Your task to perform on an android device: Turn off the flashlight Image 0: 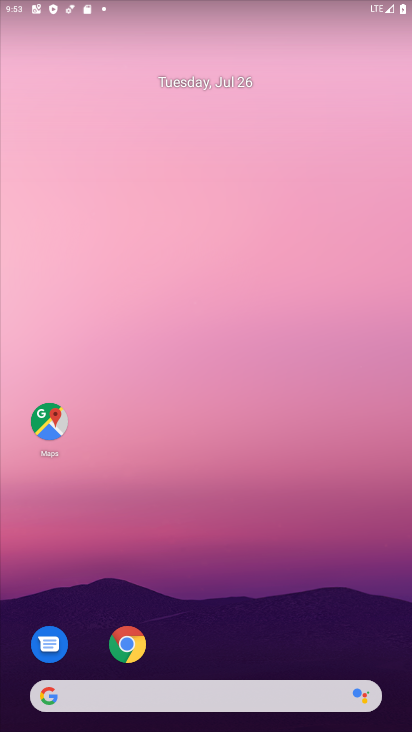
Step 0: drag from (175, 1) to (211, 548)
Your task to perform on an android device: Turn off the flashlight Image 1: 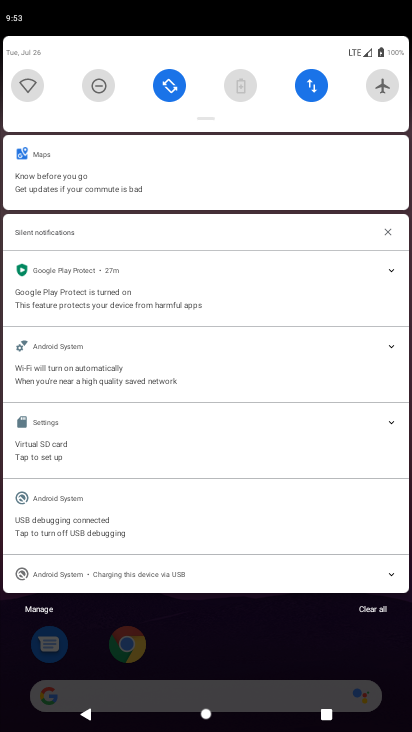
Step 1: task complete